Your task to perform on an android device: Open the Play Movies app and select the watchlist tab. Image 0: 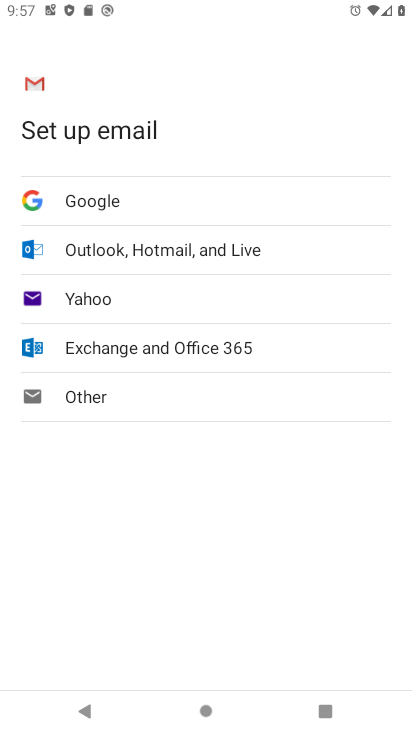
Step 0: press home button
Your task to perform on an android device: Open the Play Movies app and select the watchlist tab. Image 1: 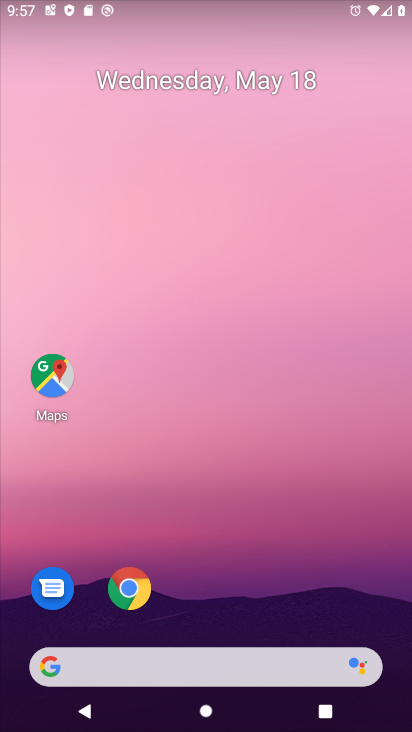
Step 1: drag from (301, 699) to (364, 146)
Your task to perform on an android device: Open the Play Movies app and select the watchlist tab. Image 2: 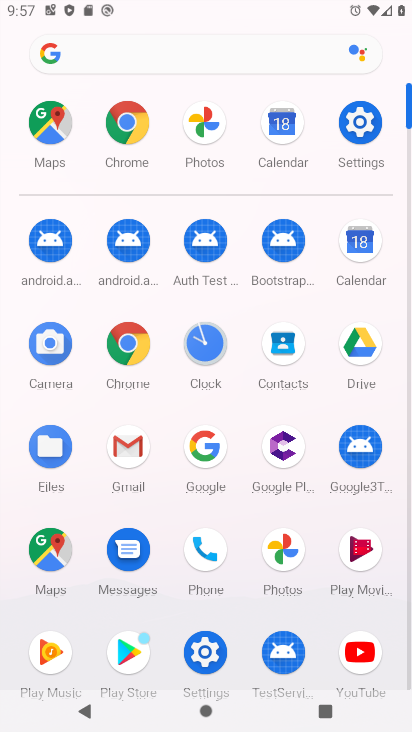
Step 2: click (373, 545)
Your task to perform on an android device: Open the Play Movies app and select the watchlist tab. Image 3: 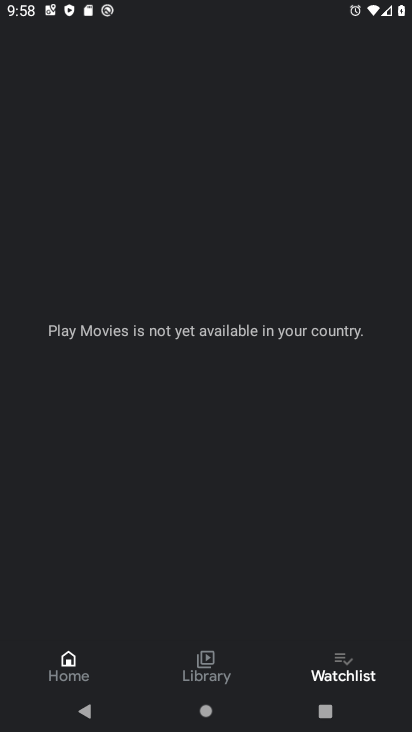
Step 3: task complete